Your task to perform on an android device: Open my contact list Image 0: 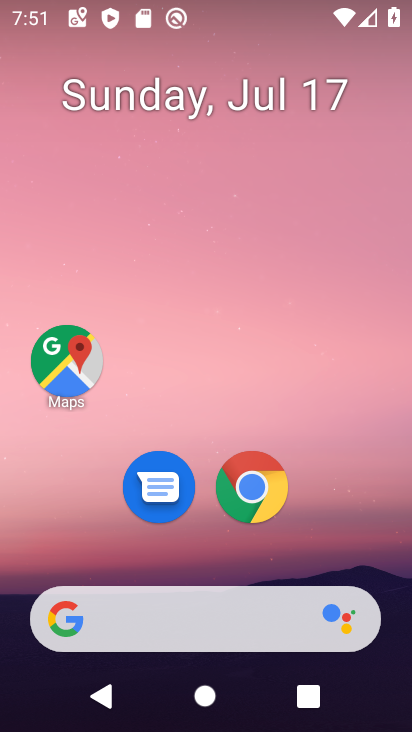
Step 0: drag from (82, 537) to (180, 104)
Your task to perform on an android device: Open my contact list Image 1: 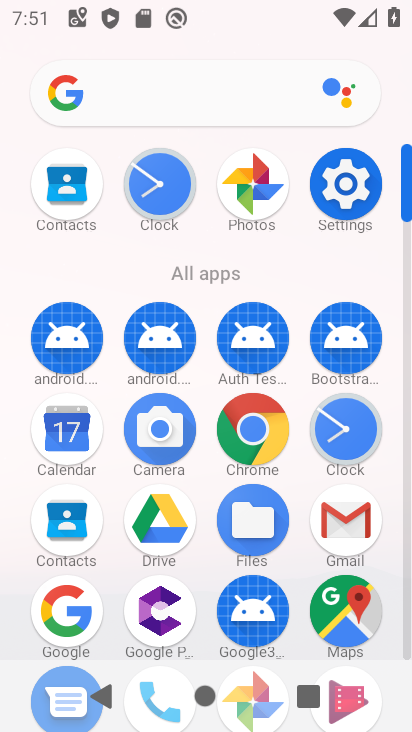
Step 1: click (60, 520)
Your task to perform on an android device: Open my contact list Image 2: 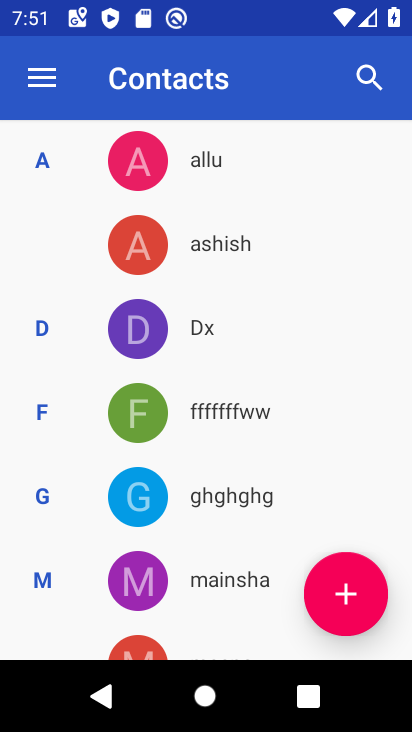
Step 2: task complete